Your task to perform on an android device: Turn off the flashlight Image 0: 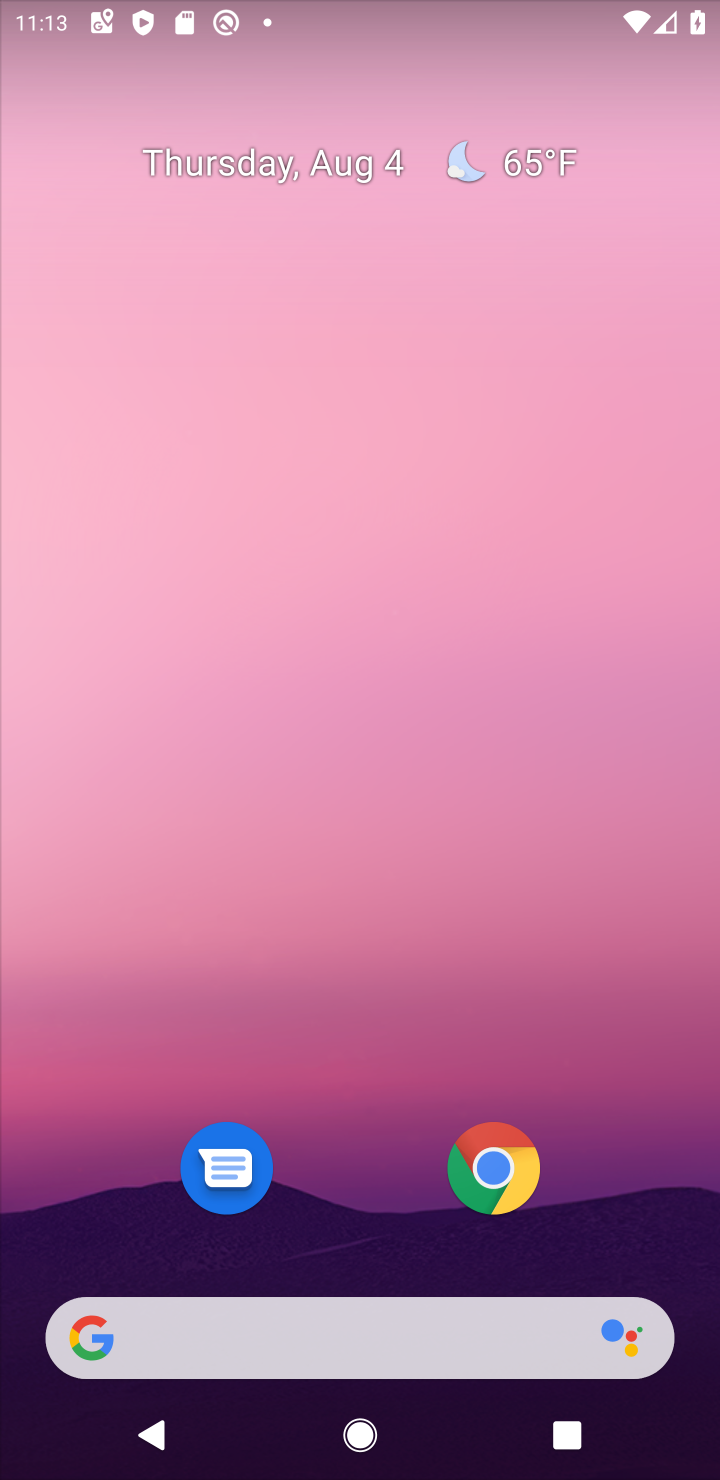
Step 0: drag from (681, 1230) to (510, 30)
Your task to perform on an android device: Turn off the flashlight Image 1: 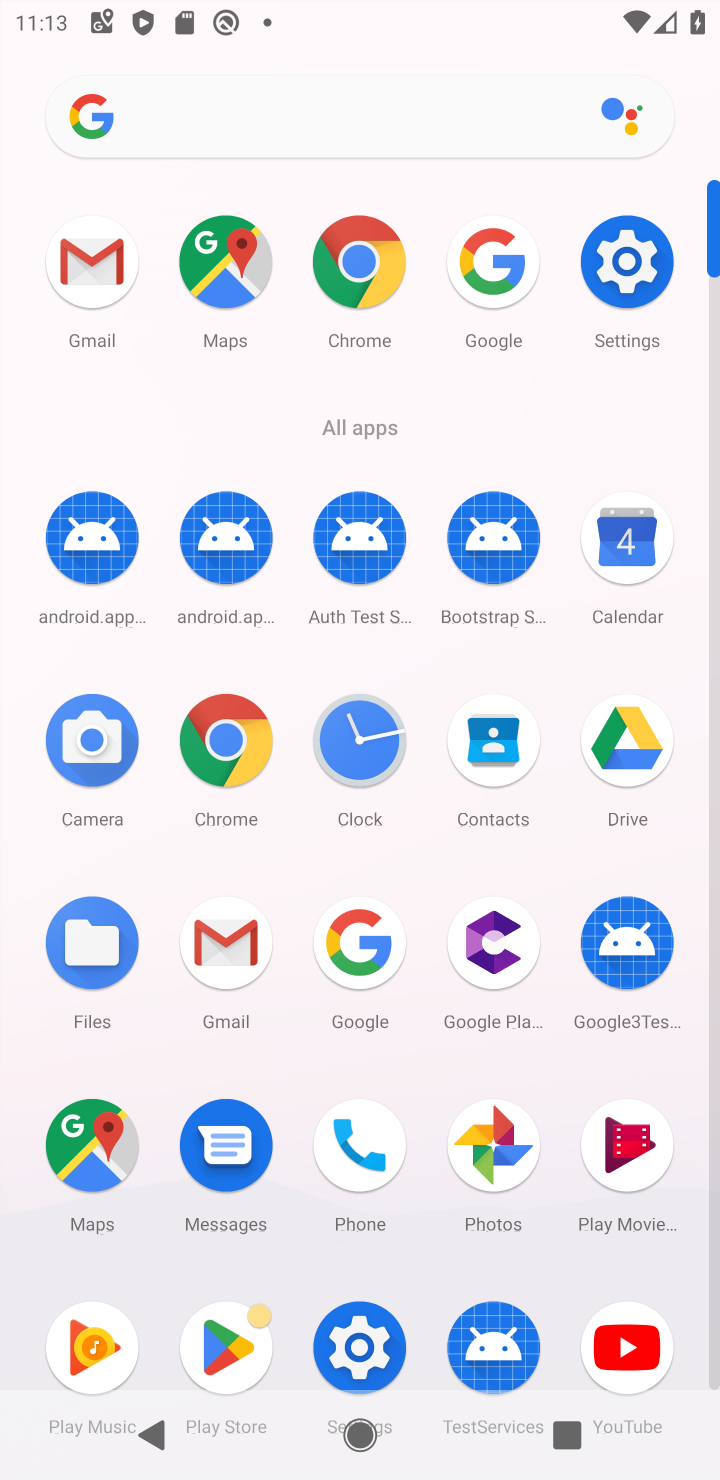
Step 1: task complete